Your task to perform on an android device: delete browsing data in the chrome app Image 0: 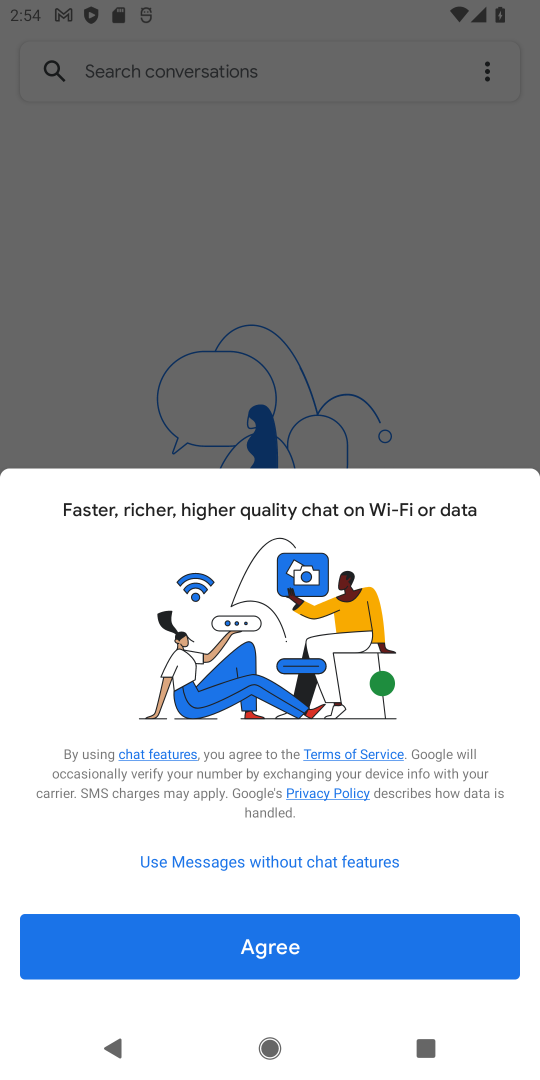
Step 0: press home button
Your task to perform on an android device: delete browsing data in the chrome app Image 1: 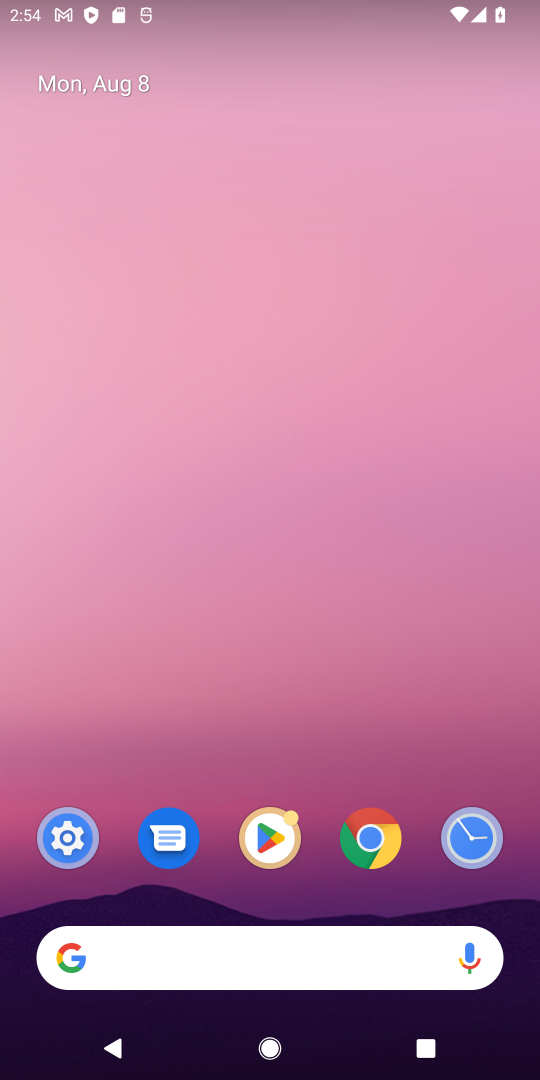
Step 1: click (370, 842)
Your task to perform on an android device: delete browsing data in the chrome app Image 2: 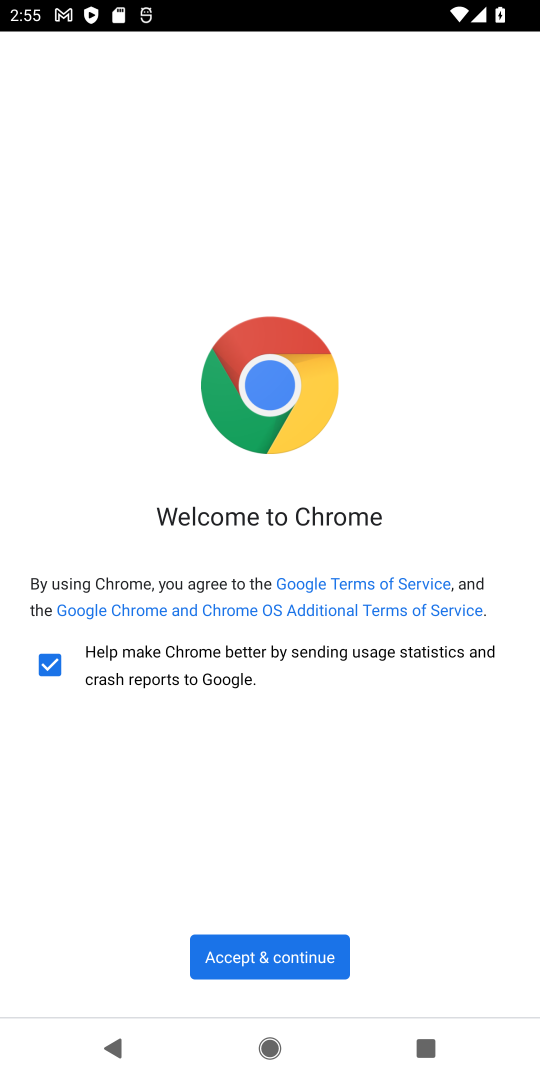
Step 2: click (292, 954)
Your task to perform on an android device: delete browsing data in the chrome app Image 3: 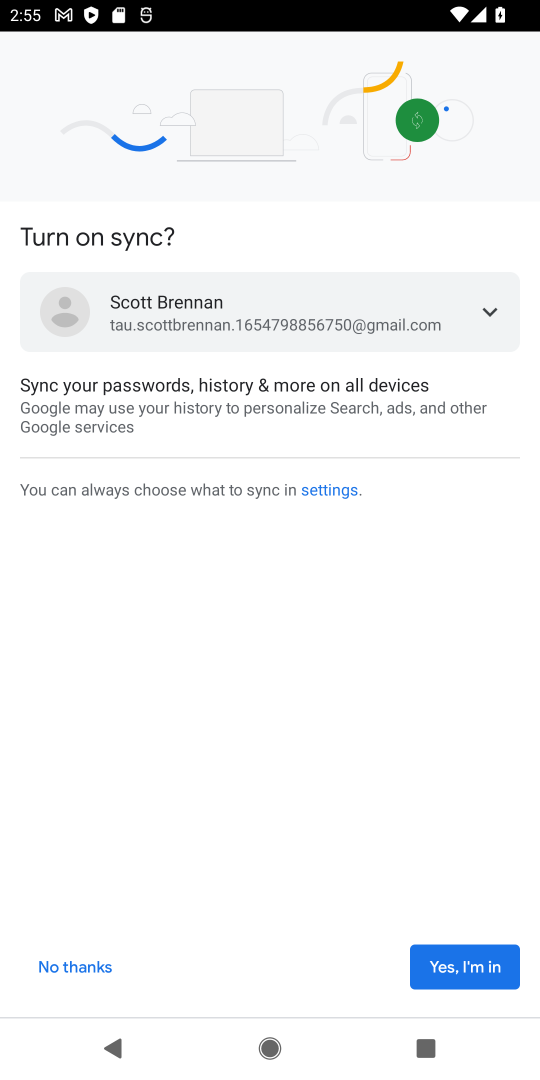
Step 3: click (454, 976)
Your task to perform on an android device: delete browsing data in the chrome app Image 4: 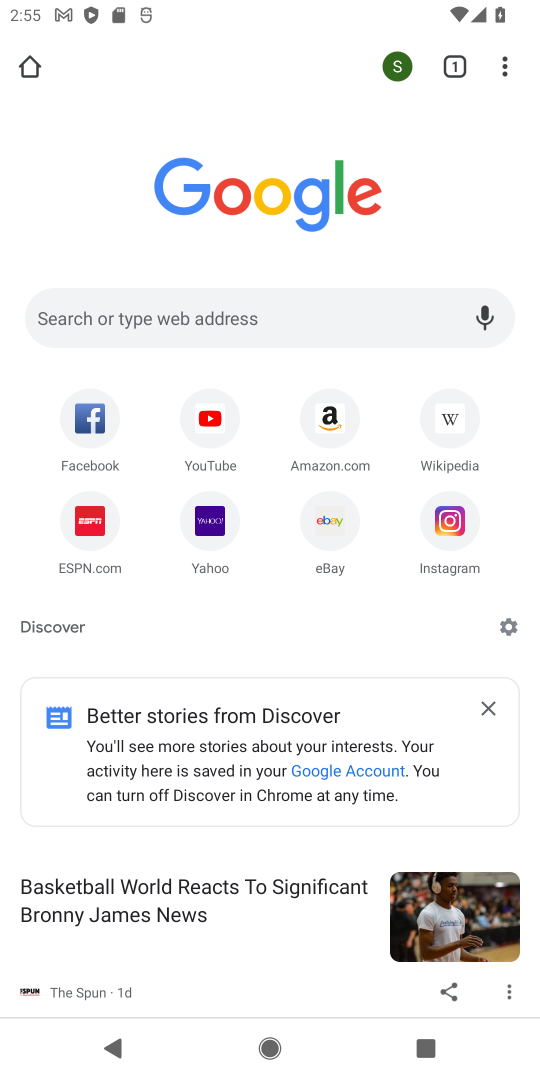
Step 4: click (504, 69)
Your task to perform on an android device: delete browsing data in the chrome app Image 5: 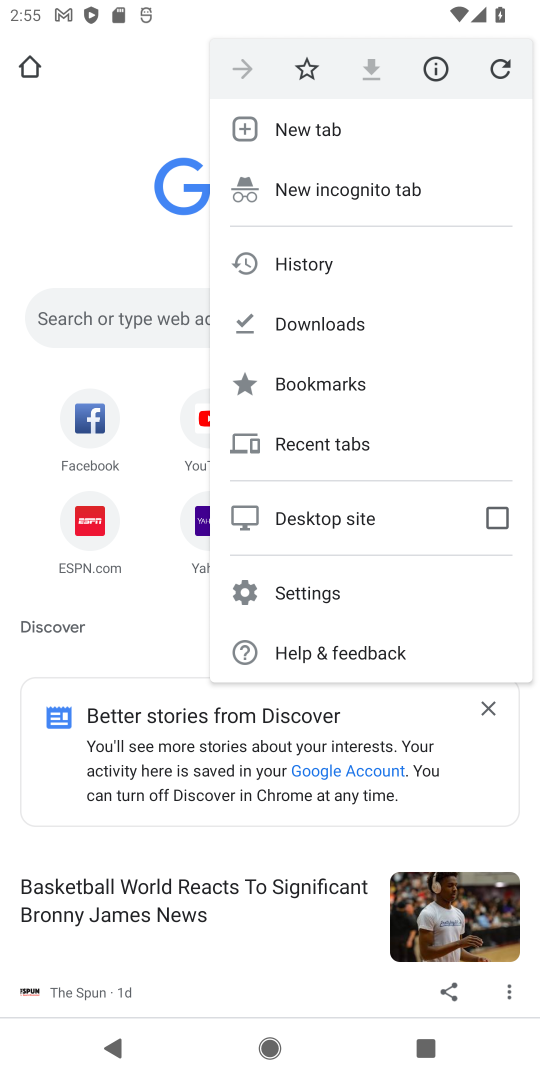
Step 5: click (297, 587)
Your task to perform on an android device: delete browsing data in the chrome app Image 6: 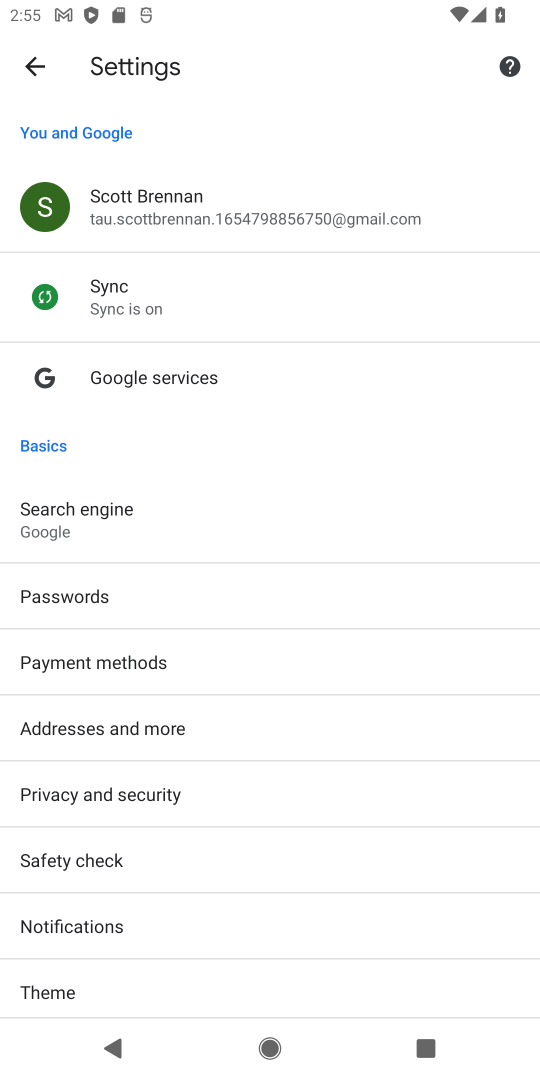
Step 6: click (149, 793)
Your task to perform on an android device: delete browsing data in the chrome app Image 7: 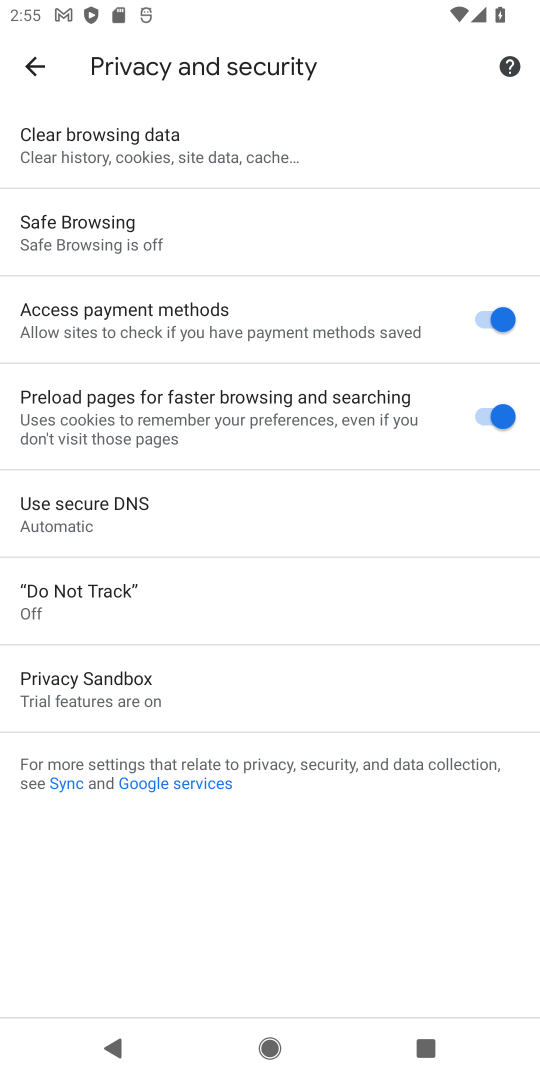
Step 7: click (191, 154)
Your task to perform on an android device: delete browsing data in the chrome app Image 8: 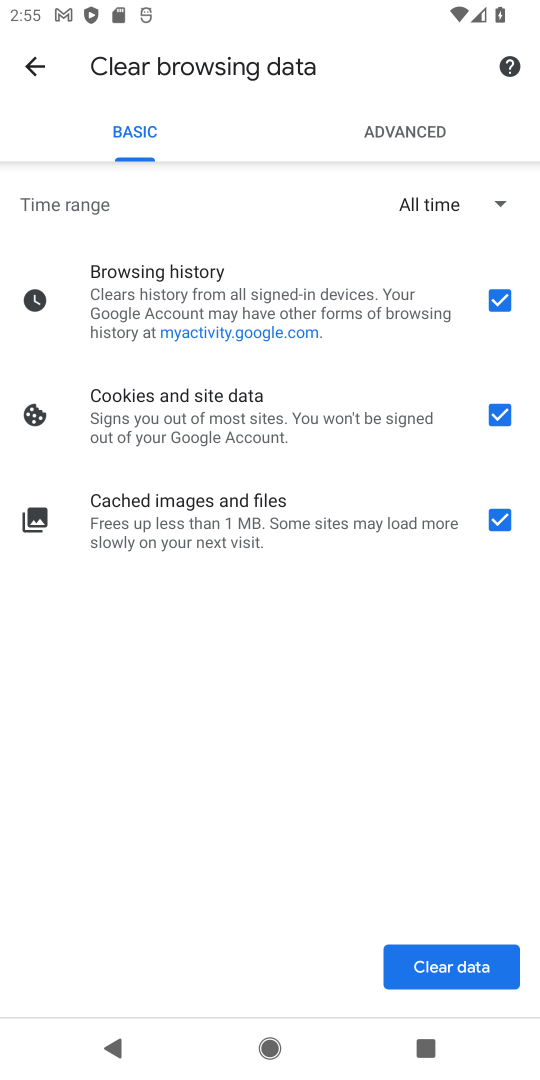
Step 8: click (440, 972)
Your task to perform on an android device: delete browsing data in the chrome app Image 9: 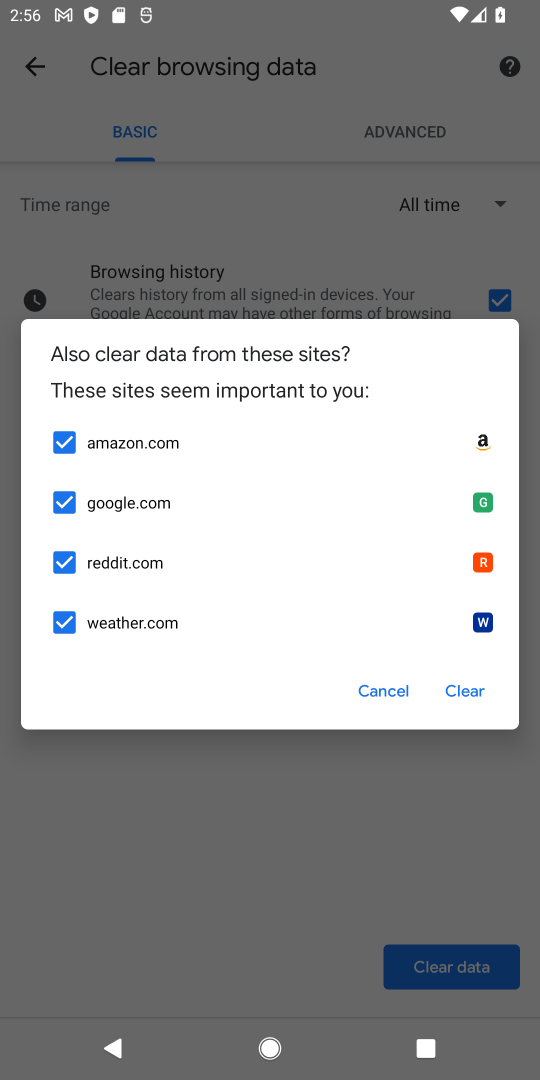
Step 9: click (458, 695)
Your task to perform on an android device: delete browsing data in the chrome app Image 10: 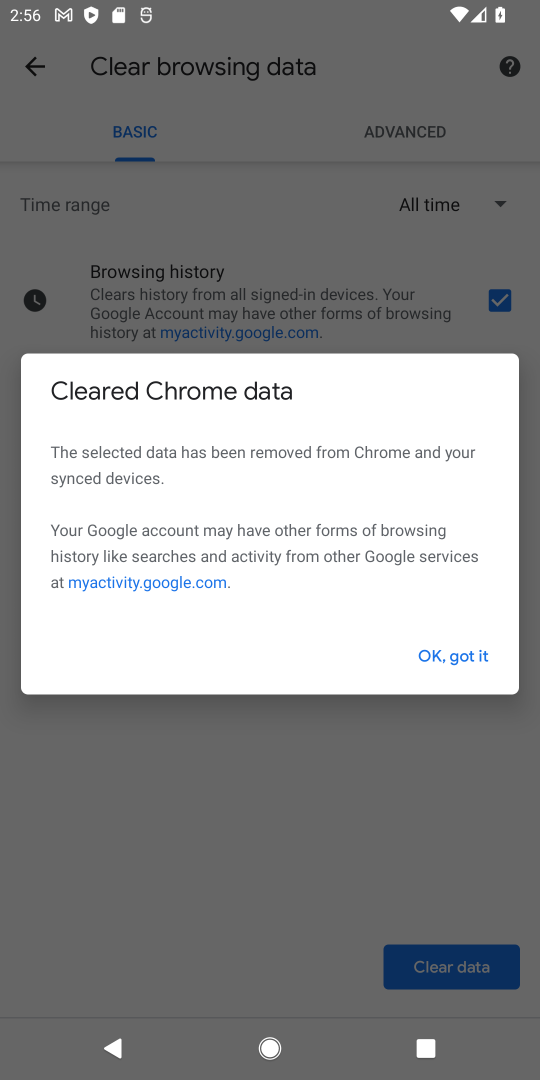
Step 10: click (470, 663)
Your task to perform on an android device: delete browsing data in the chrome app Image 11: 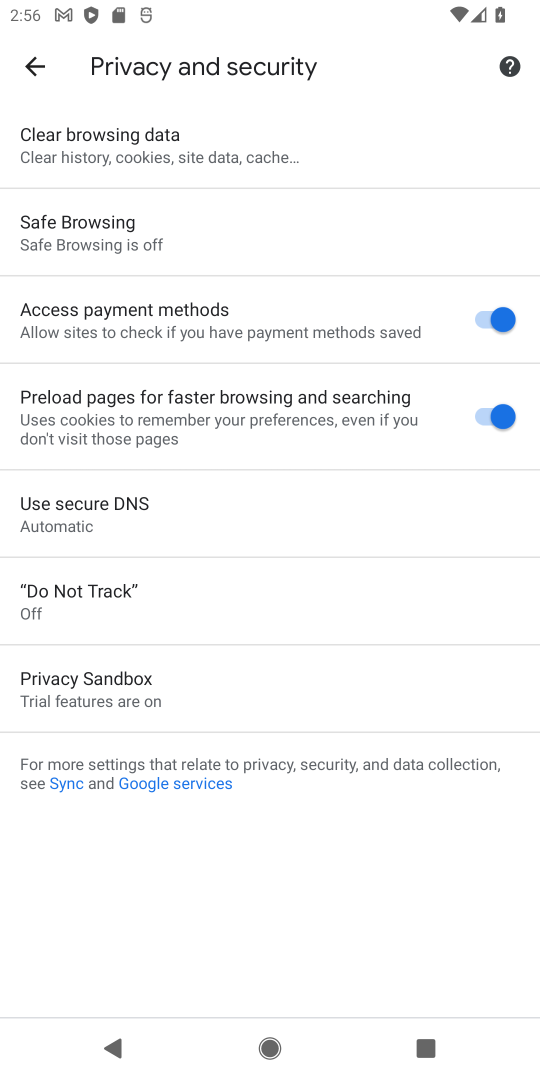
Step 11: task complete